Your task to perform on an android device: find which apps use the phone's location Image 0: 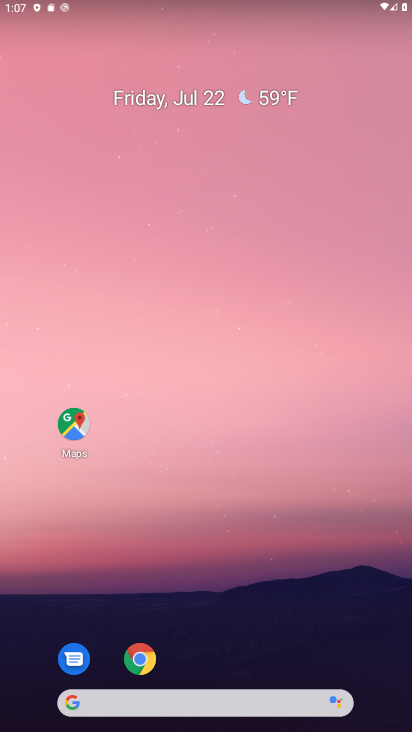
Step 0: drag from (192, 642) to (192, 266)
Your task to perform on an android device: find which apps use the phone's location Image 1: 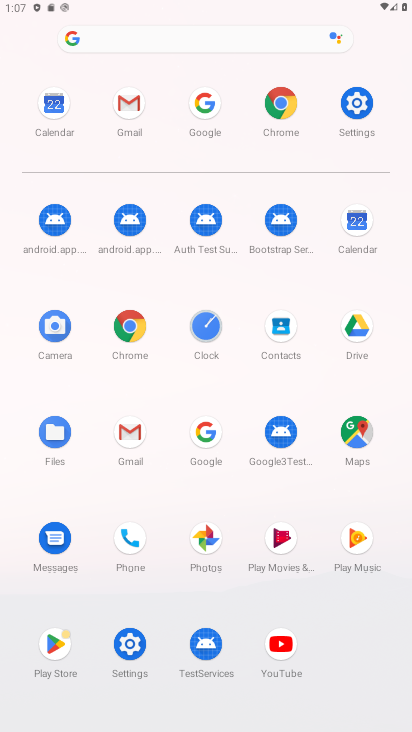
Step 1: click (360, 114)
Your task to perform on an android device: find which apps use the phone's location Image 2: 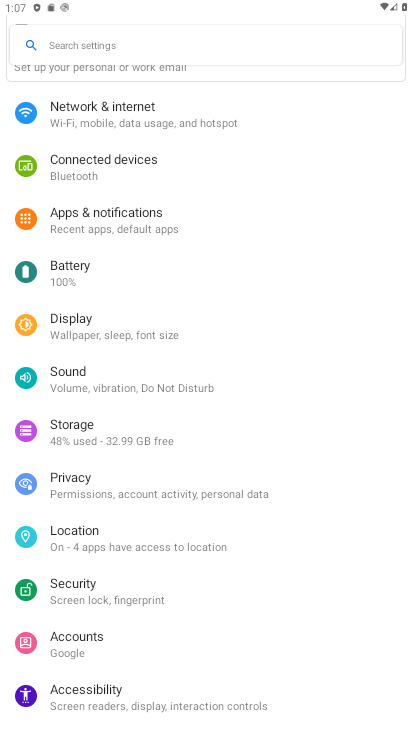
Step 2: click (93, 535)
Your task to perform on an android device: find which apps use the phone's location Image 3: 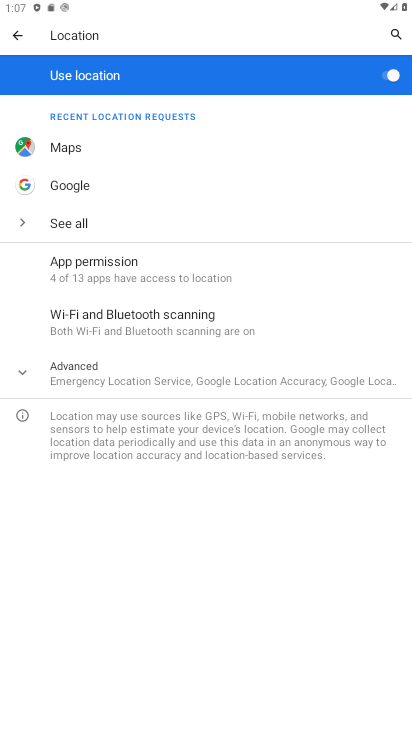
Step 3: click (115, 268)
Your task to perform on an android device: find which apps use the phone's location Image 4: 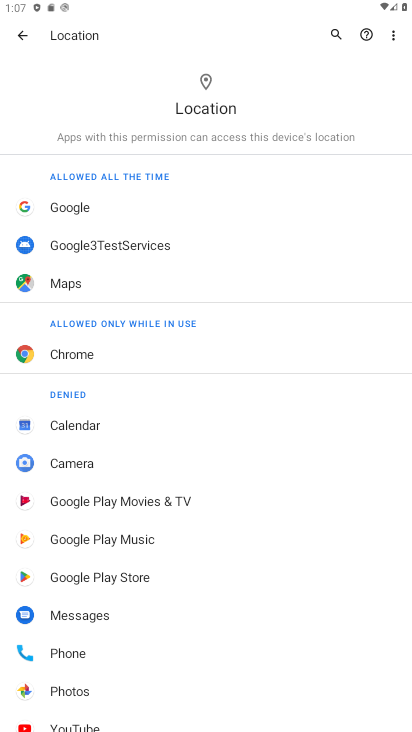
Step 4: task complete